Your task to perform on an android device: Go to Android settings Image 0: 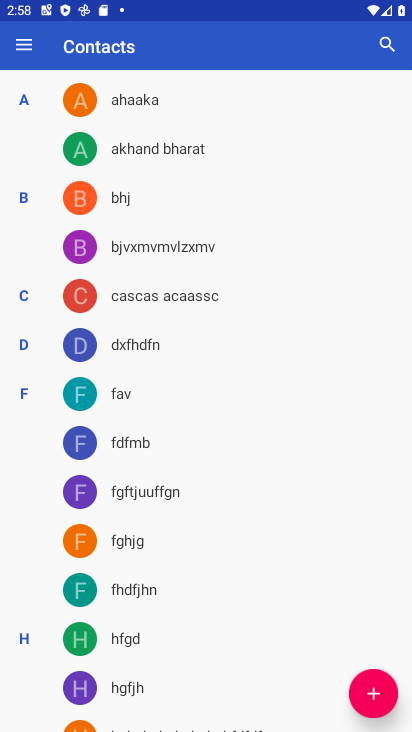
Step 0: press enter
Your task to perform on an android device: Go to Android settings Image 1: 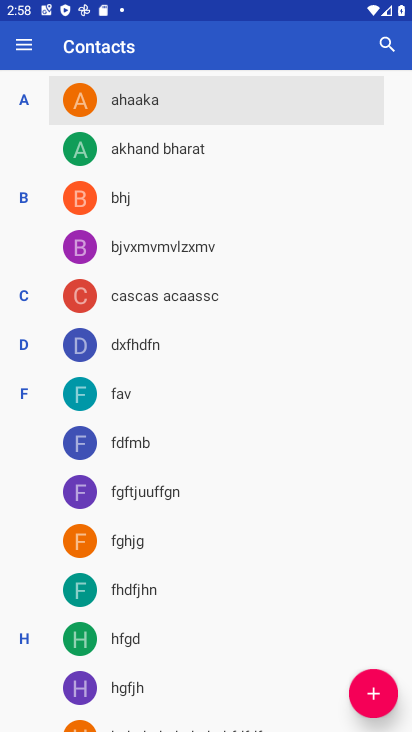
Step 1: press back button
Your task to perform on an android device: Go to Android settings Image 2: 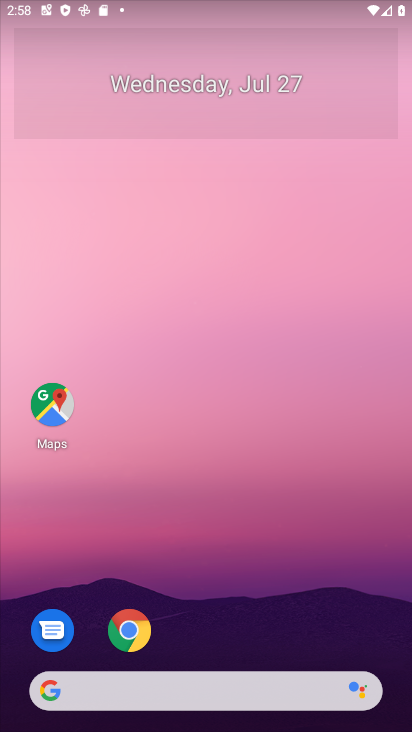
Step 2: drag from (400, 707) to (381, 127)
Your task to perform on an android device: Go to Android settings Image 3: 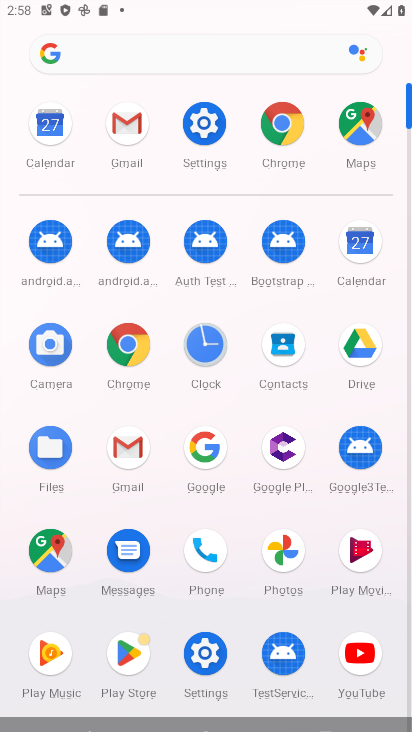
Step 3: click (201, 660)
Your task to perform on an android device: Go to Android settings Image 4: 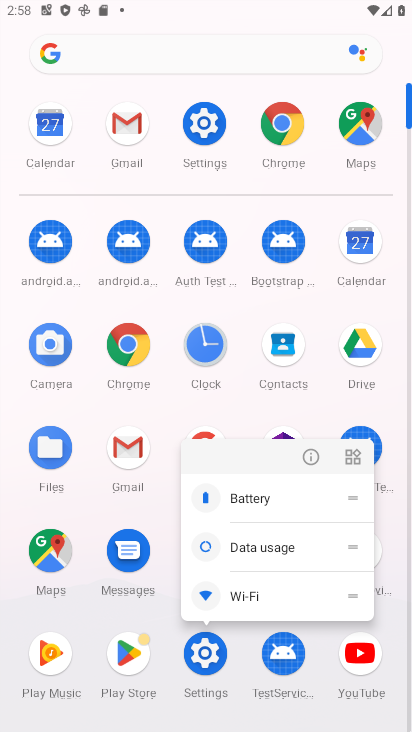
Step 4: click (211, 644)
Your task to perform on an android device: Go to Android settings Image 5: 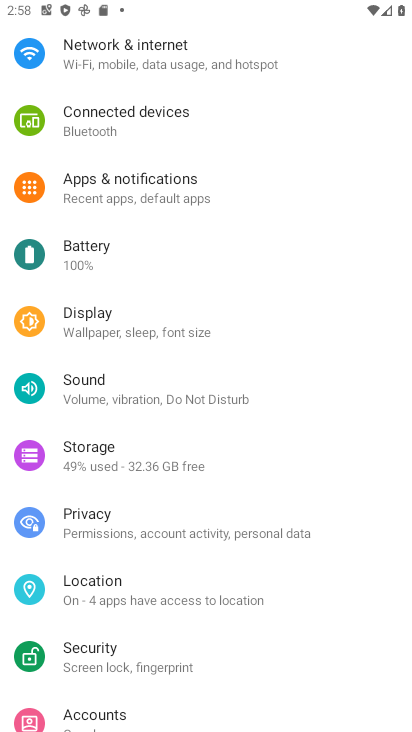
Step 5: task complete